Your task to perform on an android device: delete a single message in the gmail app Image 0: 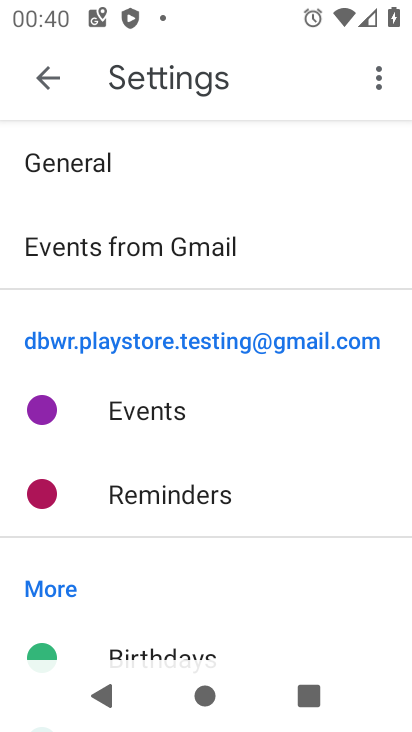
Step 0: press home button
Your task to perform on an android device: delete a single message in the gmail app Image 1: 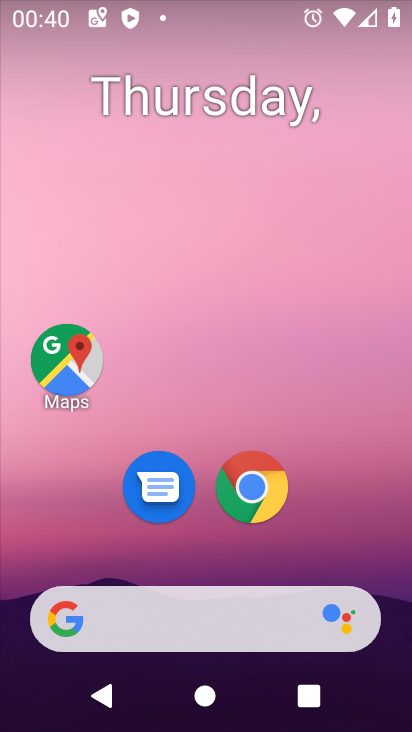
Step 1: drag from (350, 559) to (310, 0)
Your task to perform on an android device: delete a single message in the gmail app Image 2: 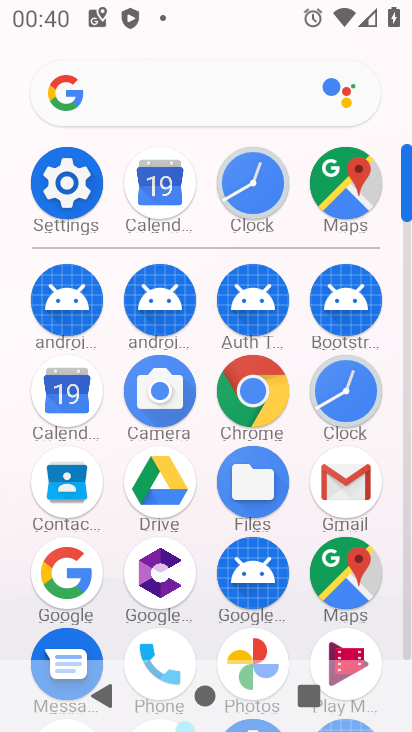
Step 2: click (350, 471)
Your task to perform on an android device: delete a single message in the gmail app Image 3: 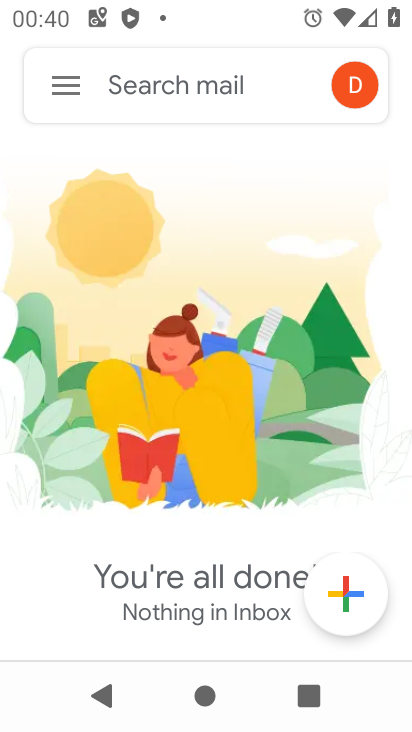
Step 3: click (65, 87)
Your task to perform on an android device: delete a single message in the gmail app Image 4: 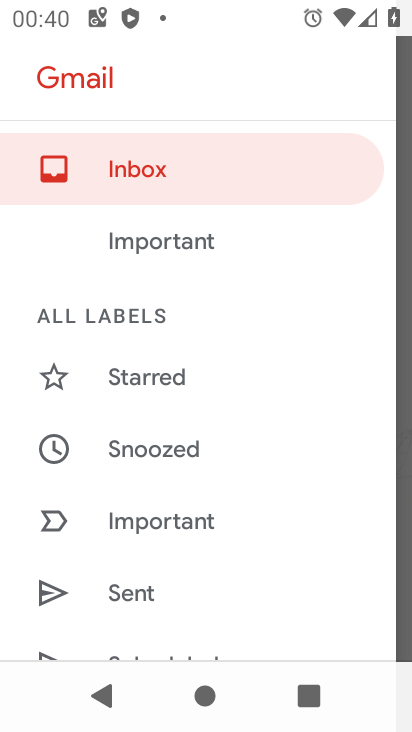
Step 4: drag from (188, 562) to (143, 42)
Your task to perform on an android device: delete a single message in the gmail app Image 5: 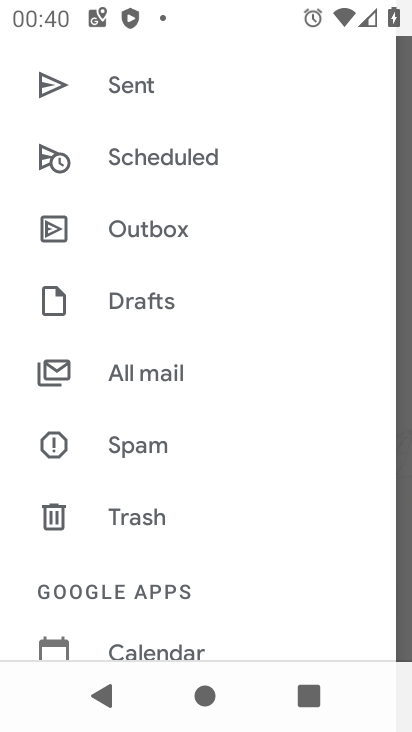
Step 5: click (147, 383)
Your task to perform on an android device: delete a single message in the gmail app Image 6: 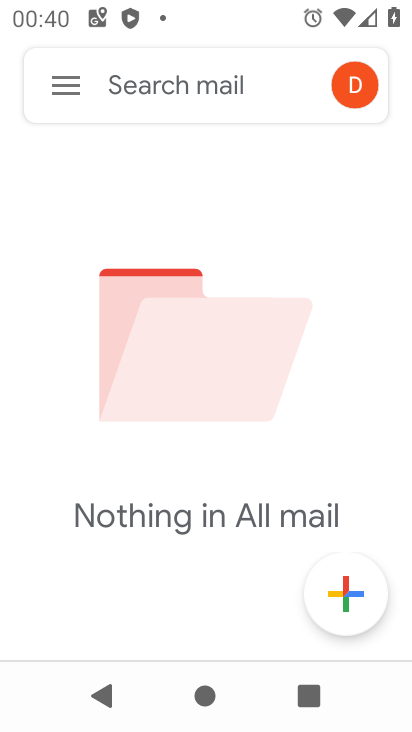
Step 6: task complete